Your task to perform on an android device: Go to battery settings Image 0: 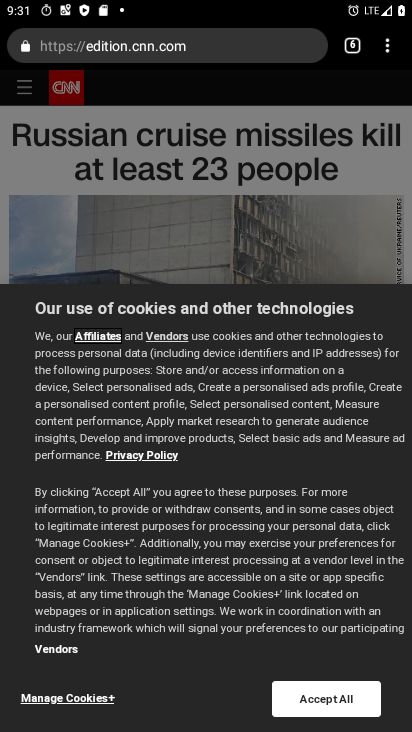
Step 0: press home button
Your task to perform on an android device: Go to battery settings Image 1: 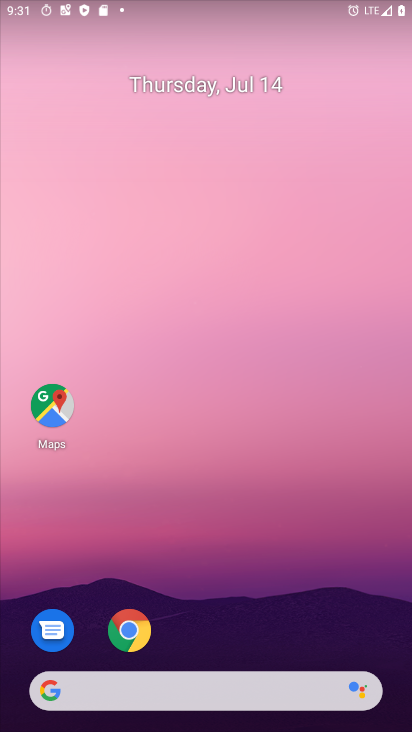
Step 1: drag from (221, 715) to (216, 293)
Your task to perform on an android device: Go to battery settings Image 2: 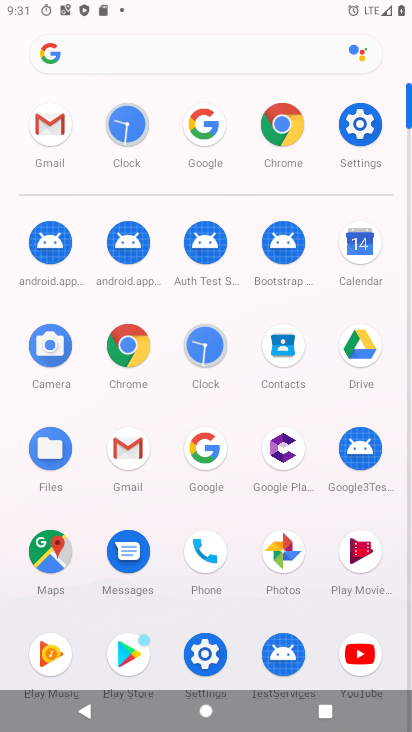
Step 2: click (354, 136)
Your task to perform on an android device: Go to battery settings Image 3: 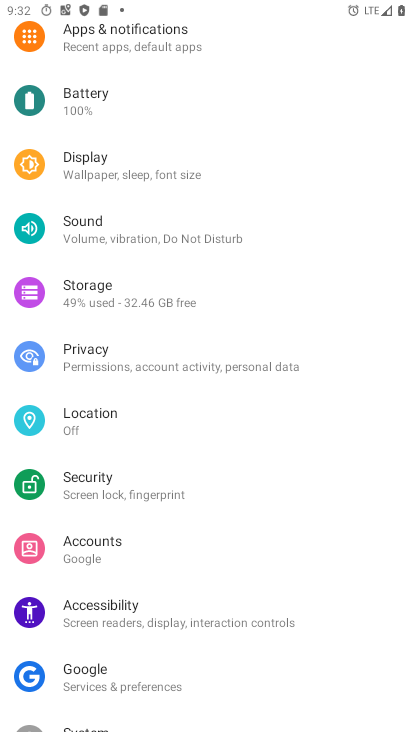
Step 3: click (76, 105)
Your task to perform on an android device: Go to battery settings Image 4: 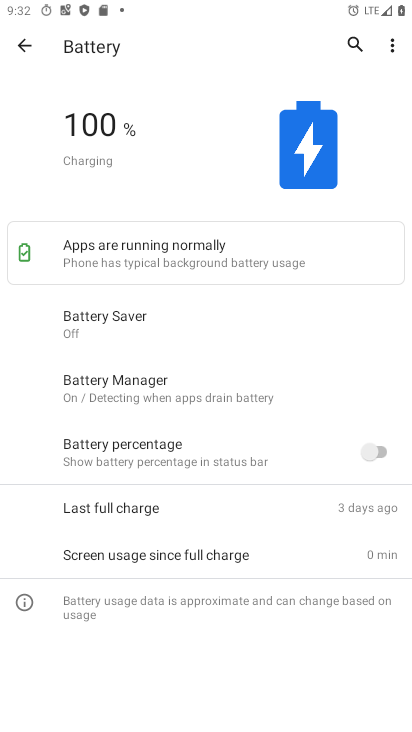
Step 4: task complete